Your task to perform on an android device: Toggle the flashlight Image 0: 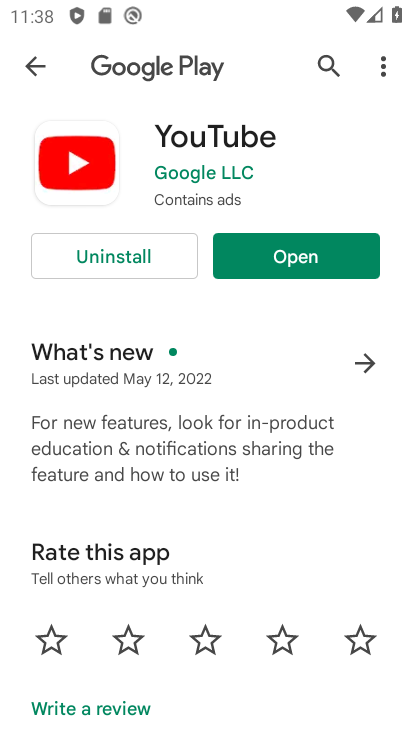
Step 0: press home button
Your task to perform on an android device: Toggle the flashlight Image 1: 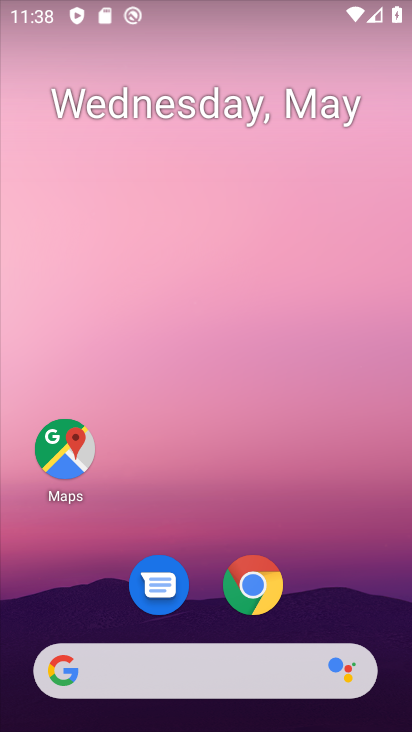
Step 1: drag from (231, 512) to (244, 51)
Your task to perform on an android device: Toggle the flashlight Image 2: 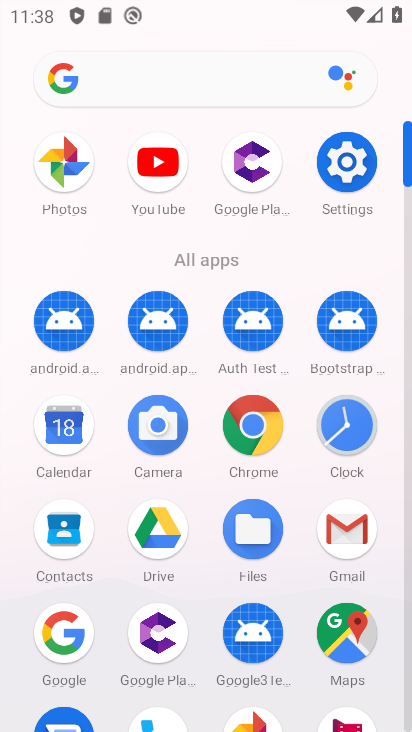
Step 2: click (342, 160)
Your task to perform on an android device: Toggle the flashlight Image 3: 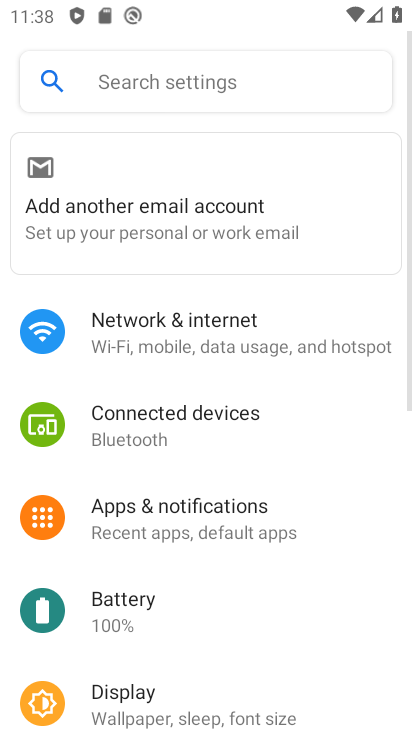
Step 3: click (269, 80)
Your task to perform on an android device: Toggle the flashlight Image 4: 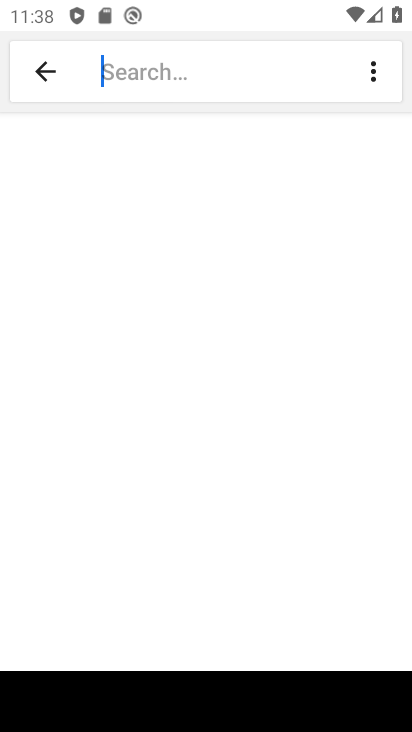
Step 4: type "Flashlight"
Your task to perform on an android device: Toggle the flashlight Image 5: 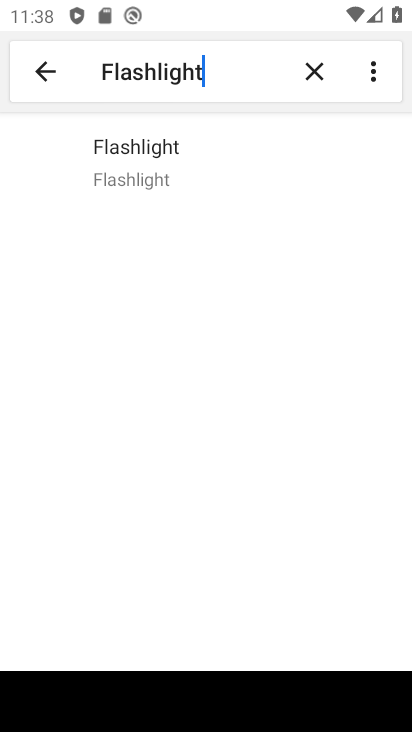
Step 5: click (153, 167)
Your task to perform on an android device: Toggle the flashlight Image 6: 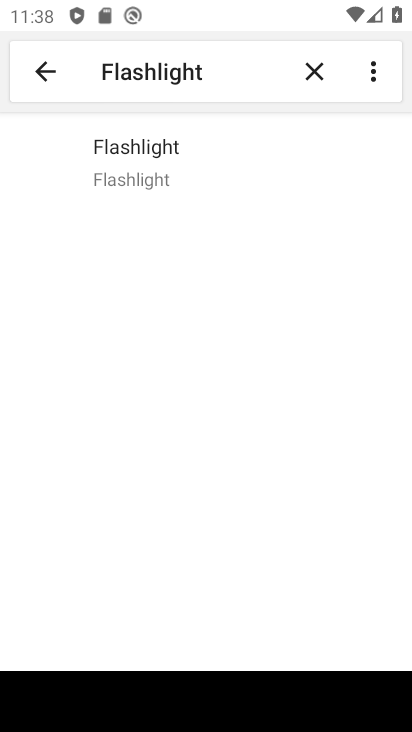
Step 6: task complete